Your task to perform on an android device: move an email to a new category in the gmail app Image 0: 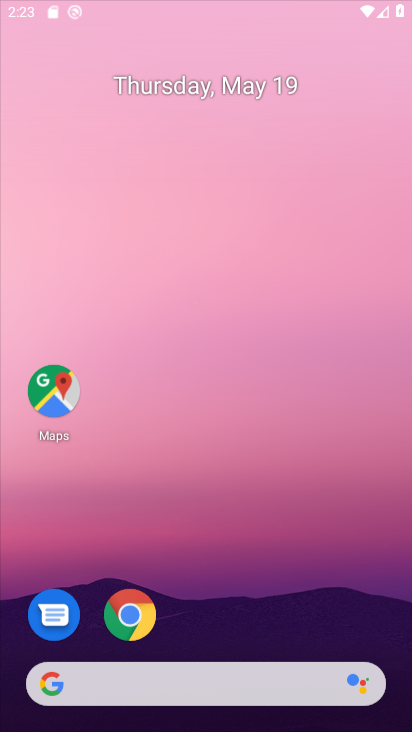
Step 0: drag from (210, 414) to (206, 38)
Your task to perform on an android device: move an email to a new category in the gmail app Image 1: 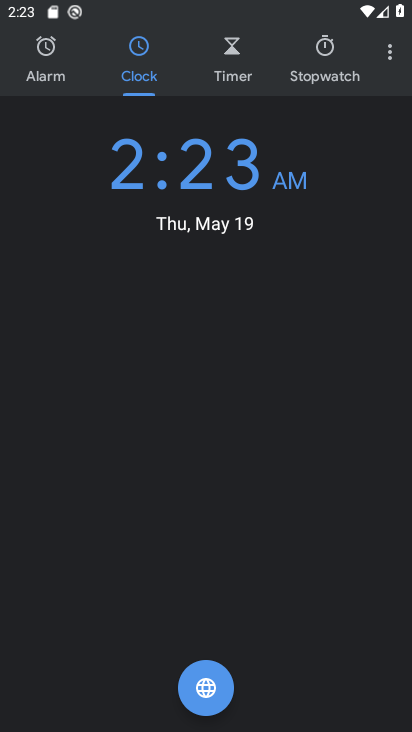
Step 1: press back button
Your task to perform on an android device: move an email to a new category in the gmail app Image 2: 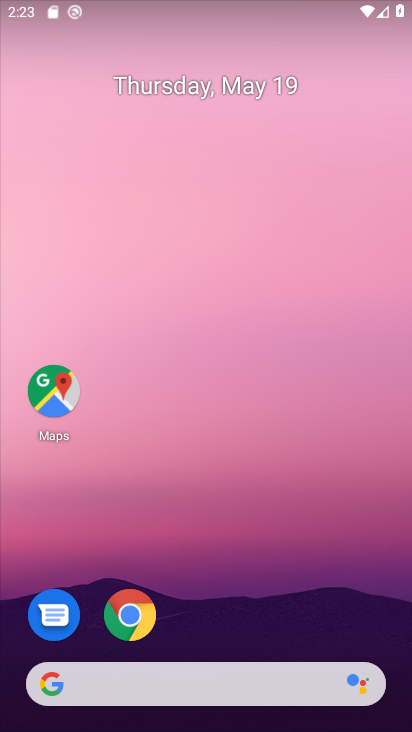
Step 2: drag from (201, 525) to (160, 0)
Your task to perform on an android device: move an email to a new category in the gmail app Image 3: 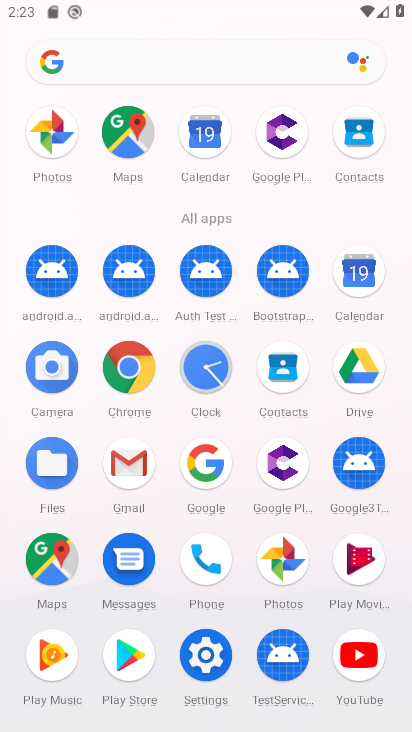
Step 3: drag from (14, 595) to (3, 297)
Your task to perform on an android device: move an email to a new category in the gmail app Image 4: 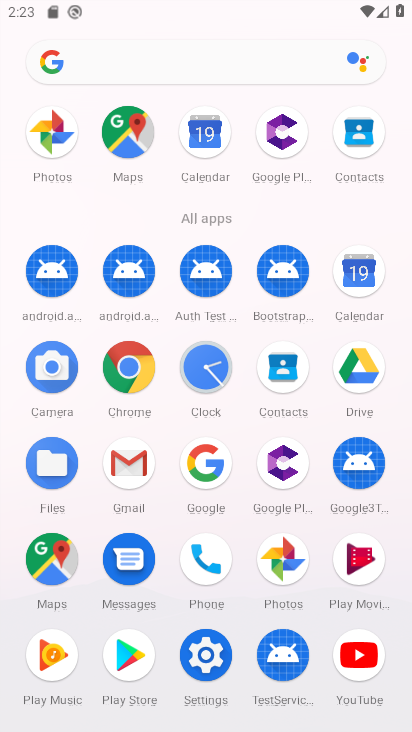
Step 4: click (128, 462)
Your task to perform on an android device: move an email to a new category in the gmail app Image 5: 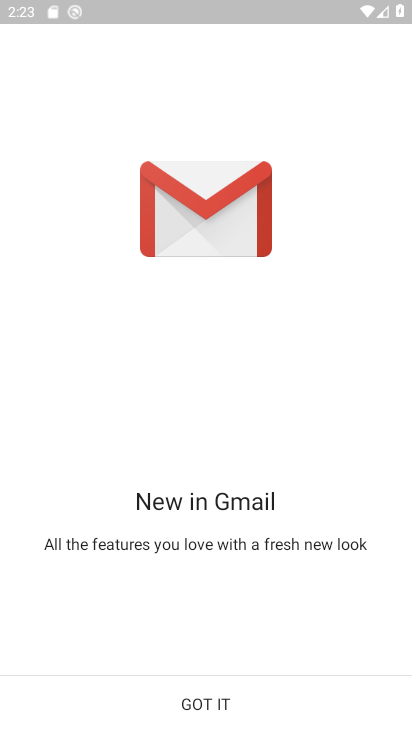
Step 5: click (201, 705)
Your task to perform on an android device: move an email to a new category in the gmail app Image 6: 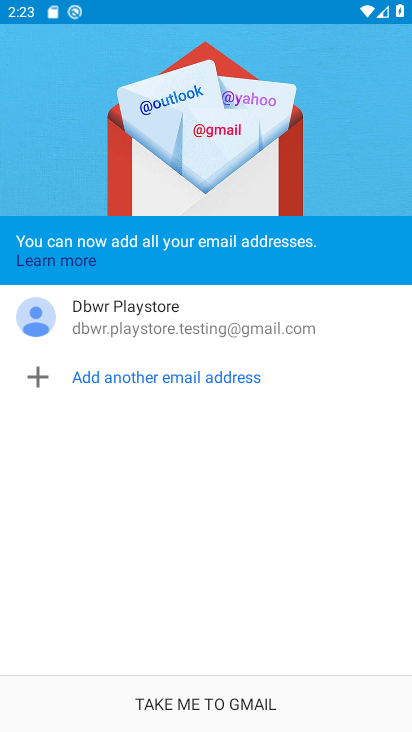
Step 6: click (194, 696)
Your task to perform on an android device: move an email to a new category in the gmail app Image 7: 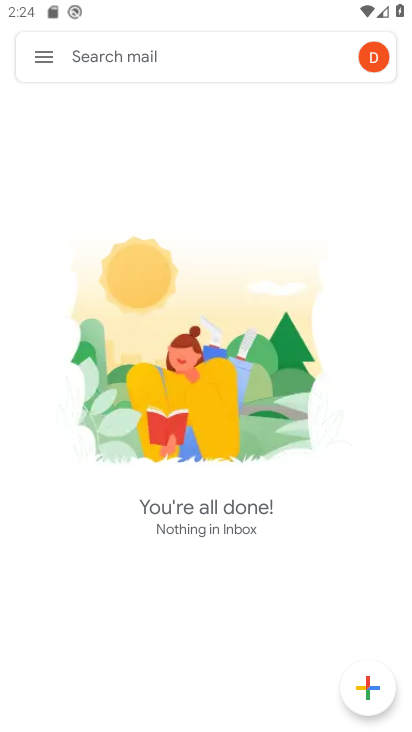
Step 7: click (44, 59)
Your task to perform on an android device: move an email to a new category in the gmail app Image 8: 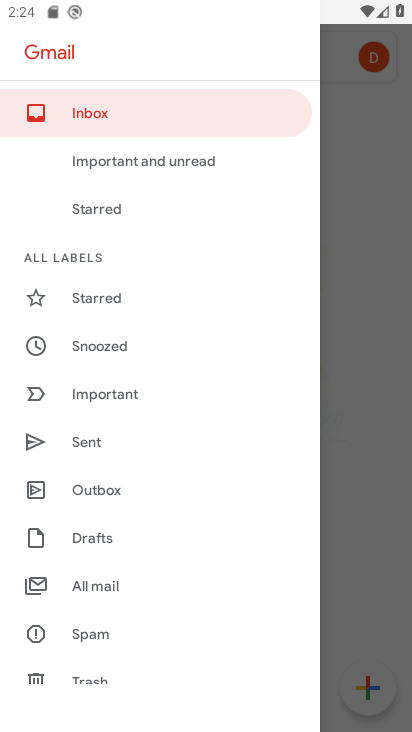
Step 8: click (120, 586)
Your task to perform on an android device: move an email to a new category in the gmail app Image 9: 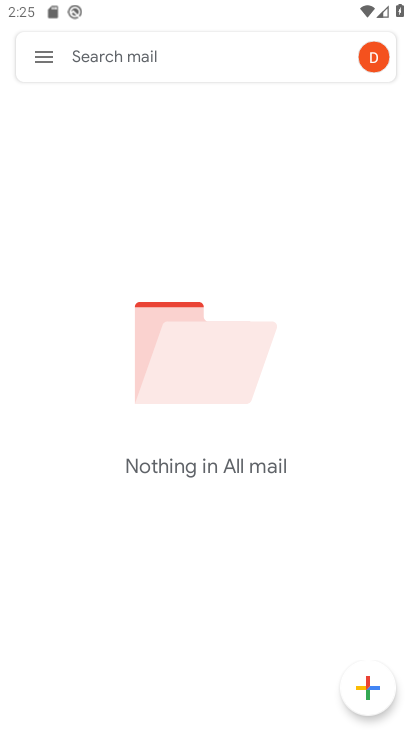
Step 9: click (41, 61)
Your task to perform on an android device: move an email to a new category in the gmail app Image 10: 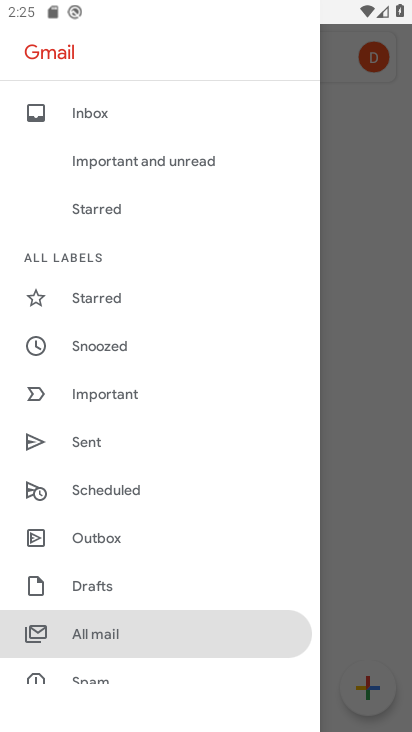
Step 10: click (124, 114)
Your task to perform on an android device: move an email to a new category in the gmail app Image 11: 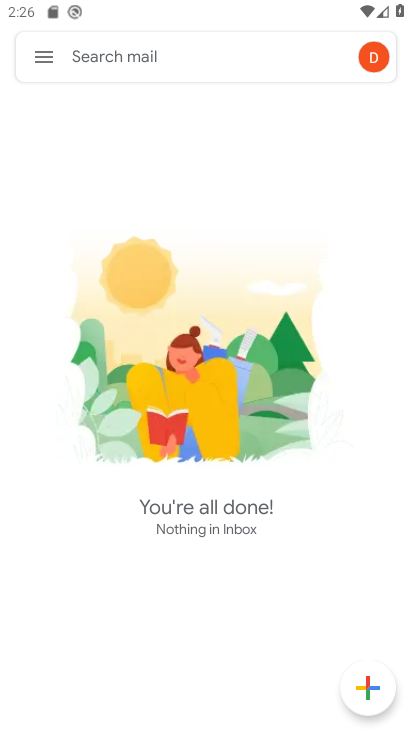
Step 11: task complete